Your task to perform on an android device: refresh tabs in the chrome app Image 0: 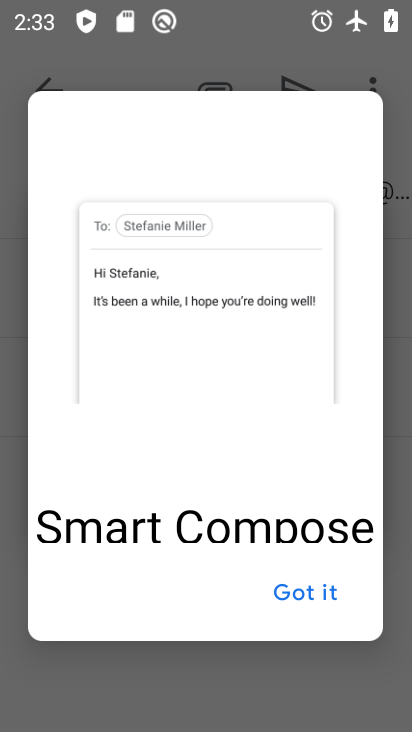
Step 0: press home button
Your task to perform on an android device: refresh tabs in the chrome app Image 1: 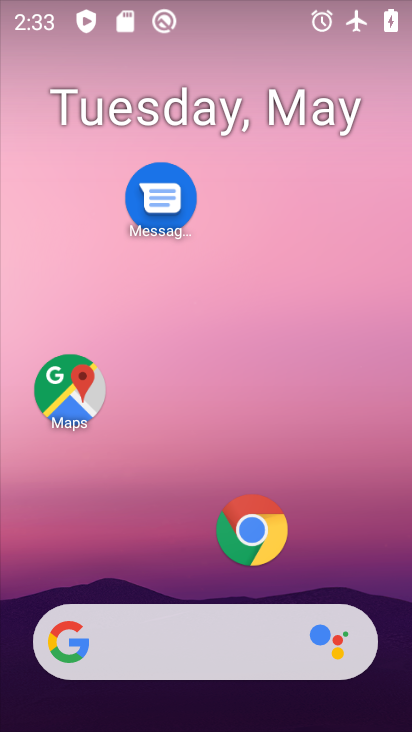
Step 1: click (242, 501)
Your task to perform on an android device: refresh tabs in the chrome app Image 2: 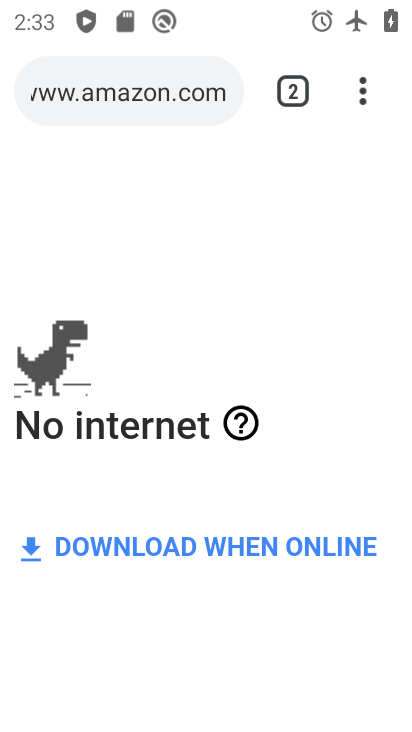
Step 2: click (360, 90)
Your task to perform on an android device: refresh tabs in the chrome app Image 3: 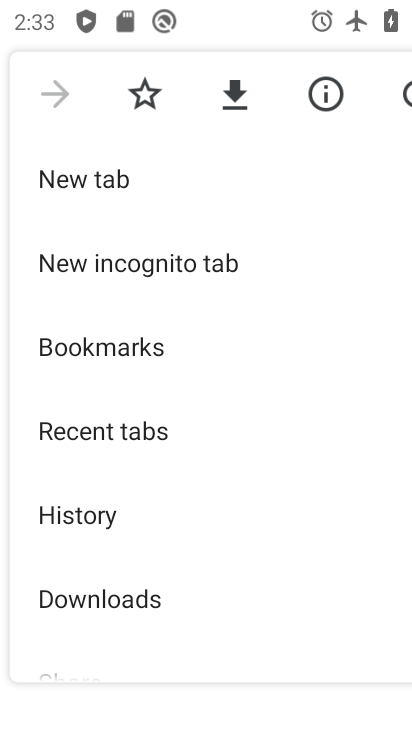
Step 3: click (403, 95)
Your task to perform on an android device: refresh tabs in the chrome app Image 4: 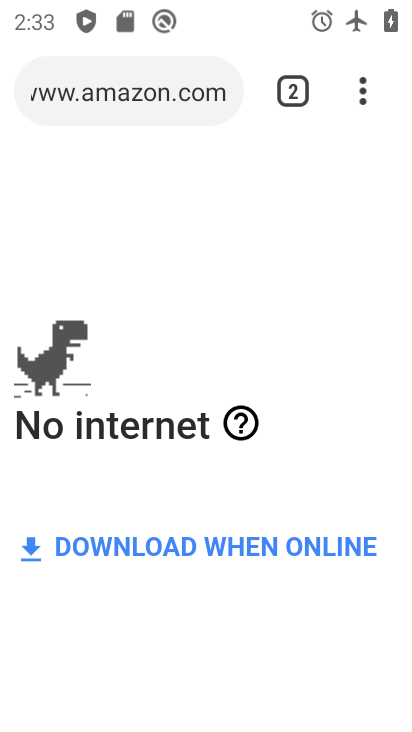
Step 4: task complete